Your task to perform on an android device: set the stopwatch Image 0: 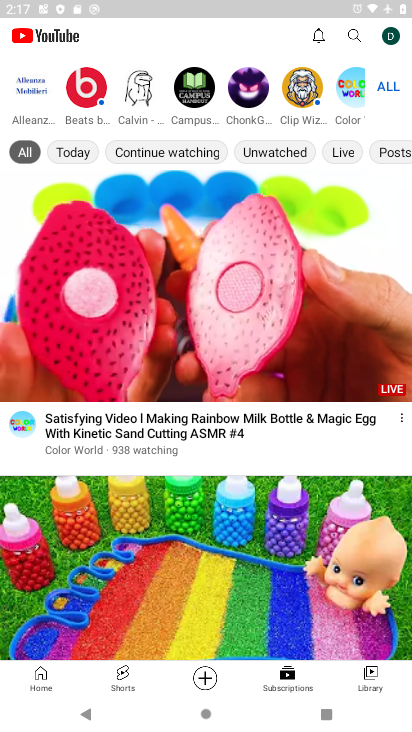
Step 0: press home button
Your task to perform on an android device: set the stopwatch Image 1: 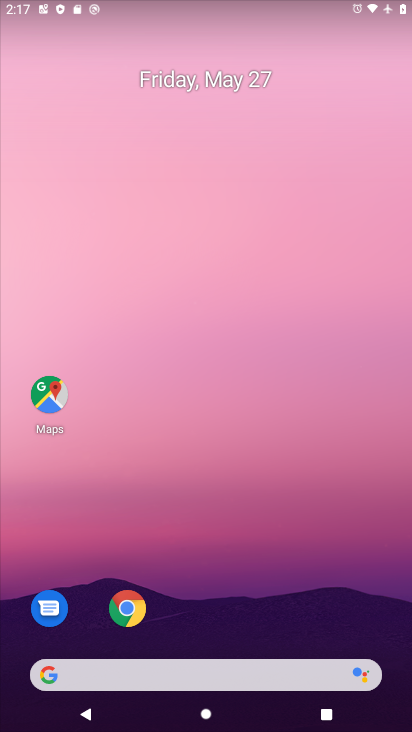
Step 1: drag from (185, 673) to (338, 61)
Your task to perform on an android device: set the stopwatch Image 2: 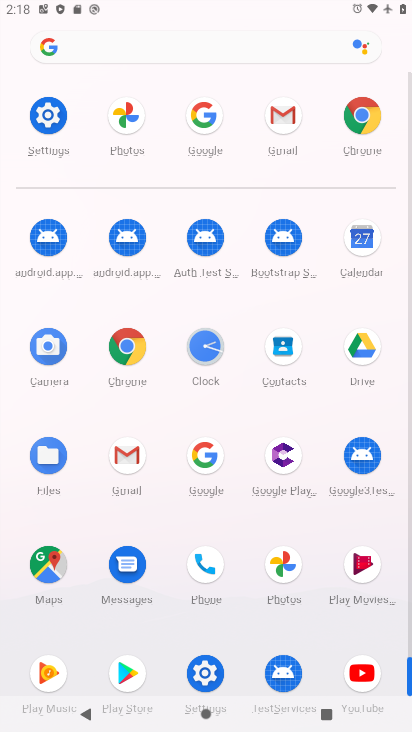
Step 2: click (196, 336)
Your task to perform on an android device: set the stopwatch Image 3: 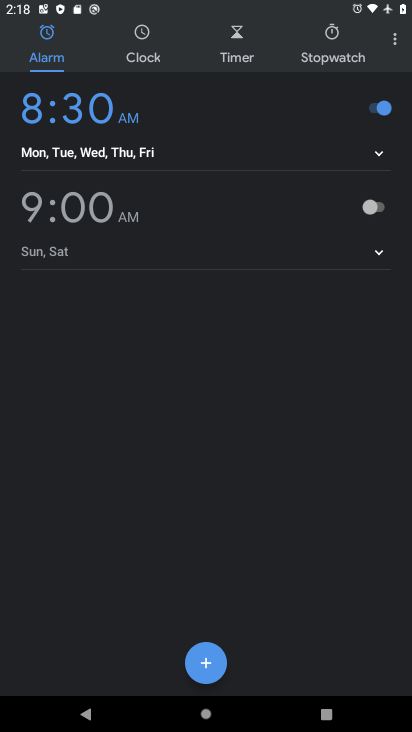
Step 3: click (334, 57)
Your task to perform on an android device: set the stopwatch Image 4: 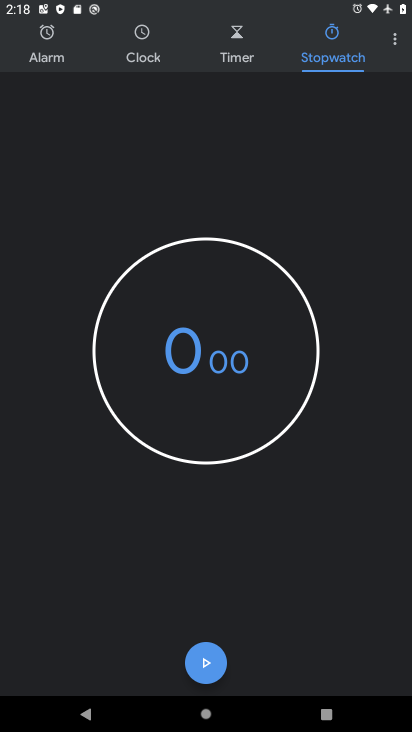
Step 4: click (208, 358)
Your task to perform on an android device: set the stopwatch Image 5: 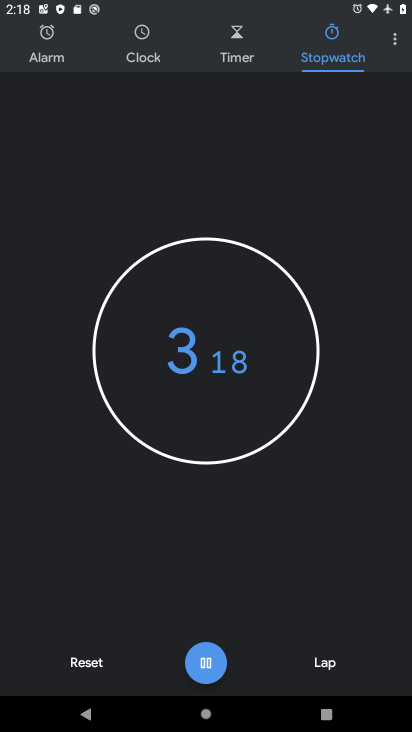
Step 5: click (220, 351)
Your task to perform on an android device: set the stopwatch Image 6: 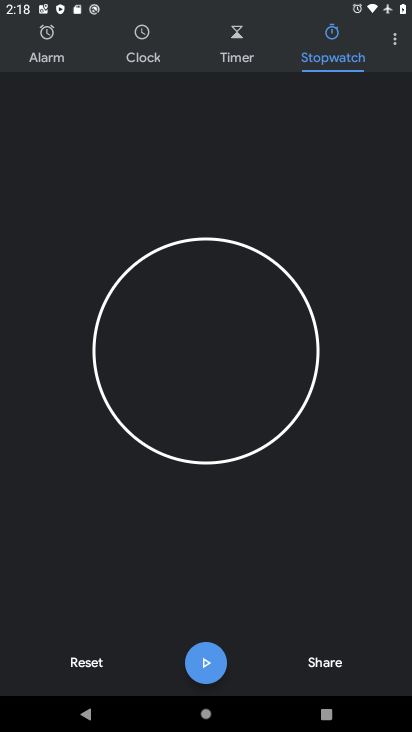
Step 6: task complete